Your task to perform on an android device: Open Chrome and go to the settings page Image 0: 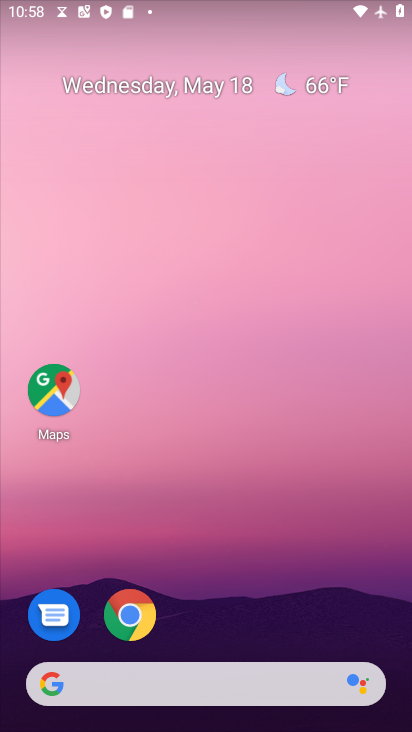
Step 0: drag from (245, 539) to (231, 25)
Your task to perform on an android device: Open Chrome and go to the settings page Image 1: 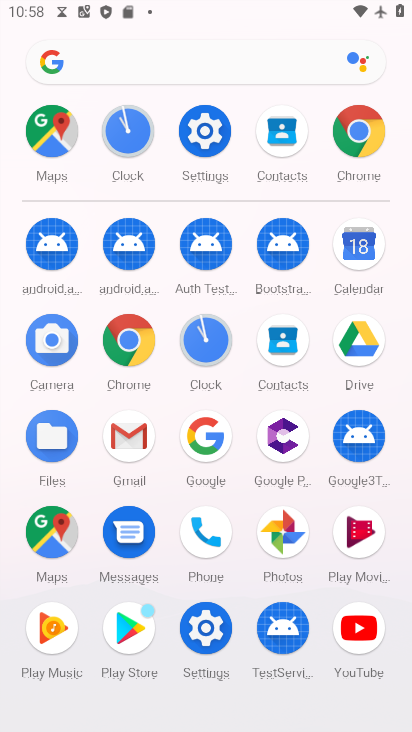
Step 1: drag from (7, 530) to (13, 208)
Your task to perform on an android device: Open Chrome and go to the settings page Image 2: 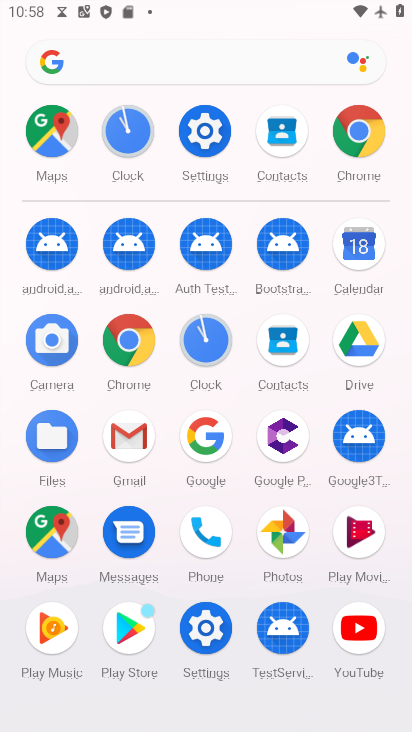
Step 2: click (129, 335)
Your task to perform on an android device: Open Chrome and go to the settings page Image 3: 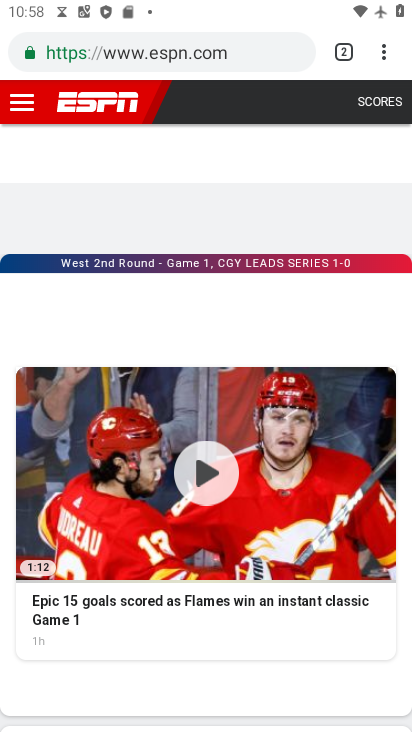
Step 3: task complete